Your task to perform on an android device: Open calendar and show me the fourth week of next month Image 0: 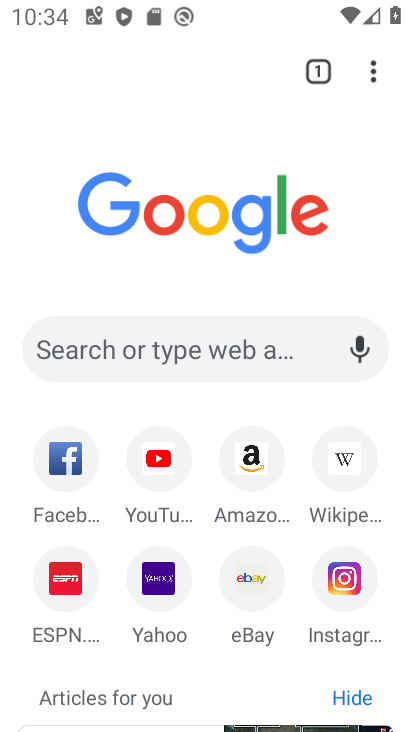
Step 0: press home button
Your task to perform on an android device: Open calendar and show me the fourth week of next month Image 1: 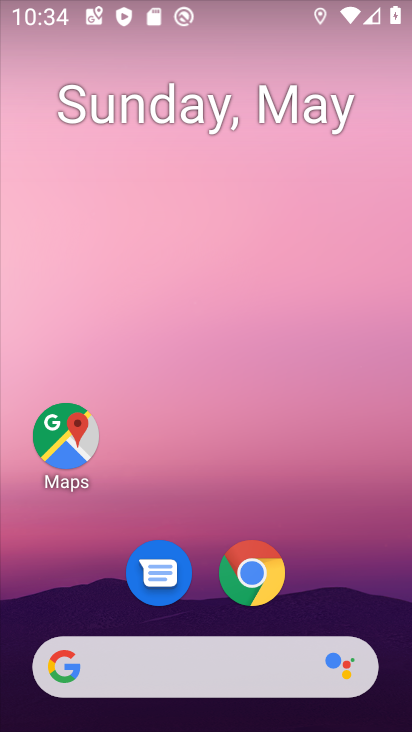
Step 1: drag from (182, 618) to (274, 163)
Your task to perform on an android device: Open calendar and show me the fourth week of next month Image 2: 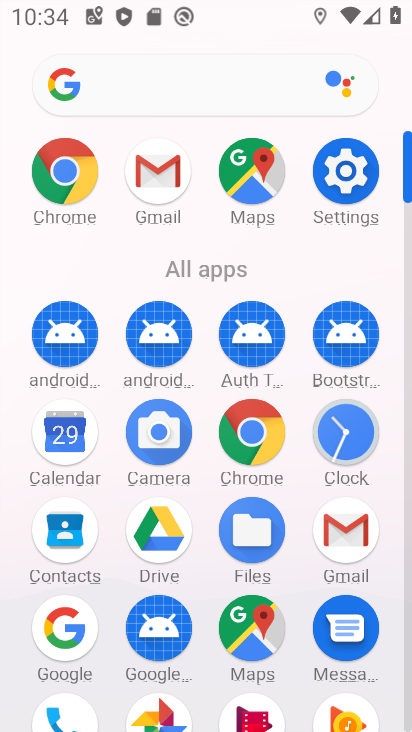
Step 2: click (71, 434)
Your task to perform on an android device: Open calendar and show me the fourth week of next month Image 3: 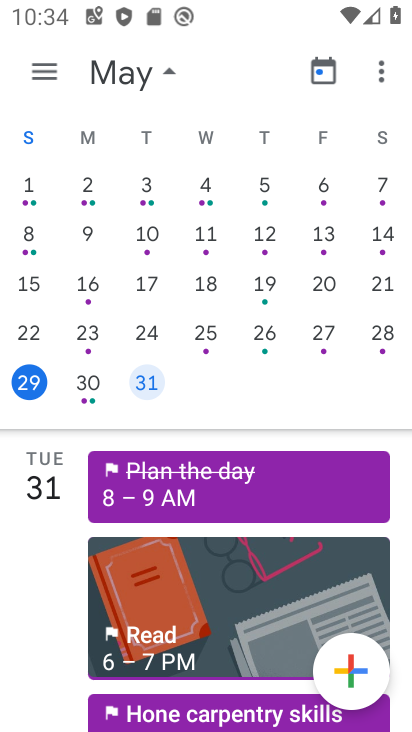
Step 3: drag from (394, 251) to (86, 252)
Your task to perform on an android device: Open calendar and show me the fourth week of next month Image 4: 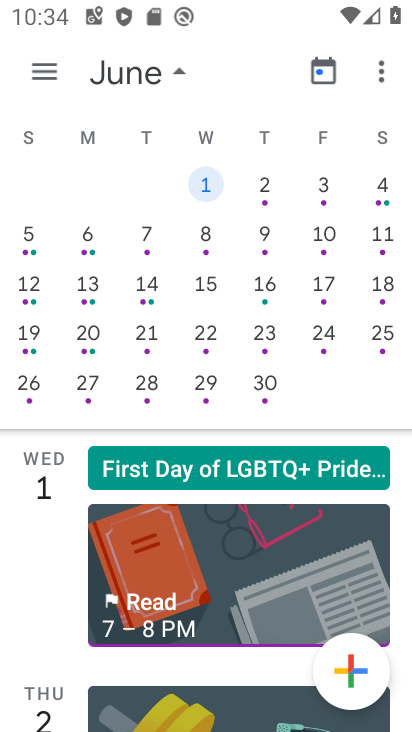
Step 4: click (211, 328)
Your task to perform on an android device: Open calendar and show me the fourth week of next month Image 5: 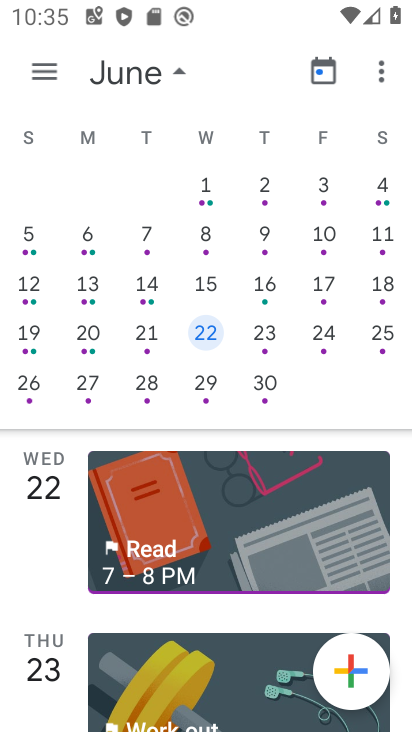
Step 5: click (42, 336)
Your task to perform on an android device: Open calendar and show me the fourth week of next month Image 6: 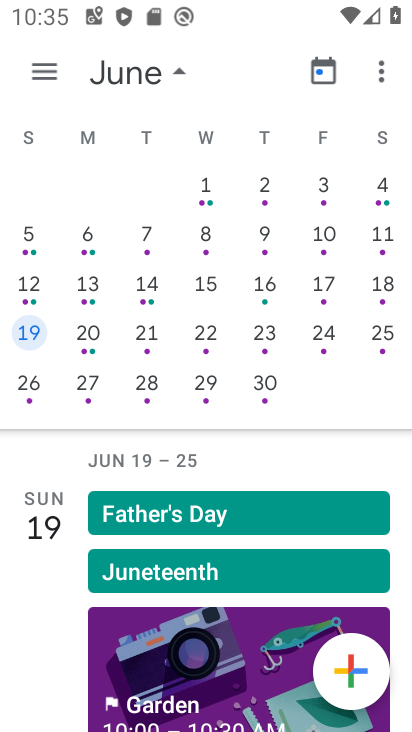
Step 6: click (93, 340)
Your task to perform on an android device: Open calendar and show me the fourth week of next month Image 7: 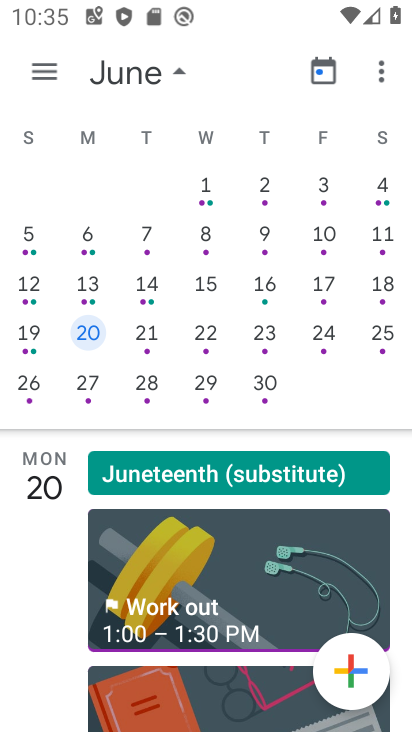
Step 7: click (147, 345)
Your task to perform on an android device: Open calendar and show me the fourth week of next month Image 8: 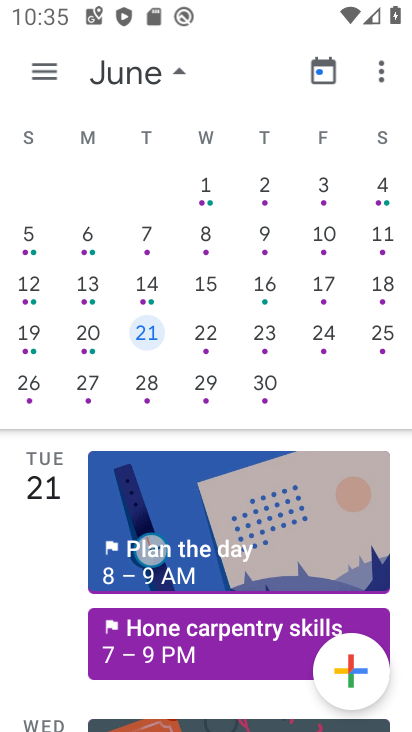
Step 8: click (211, 339)
Your task to perform on an android device: Open calendar and show me the fourth week of next month Image 9: 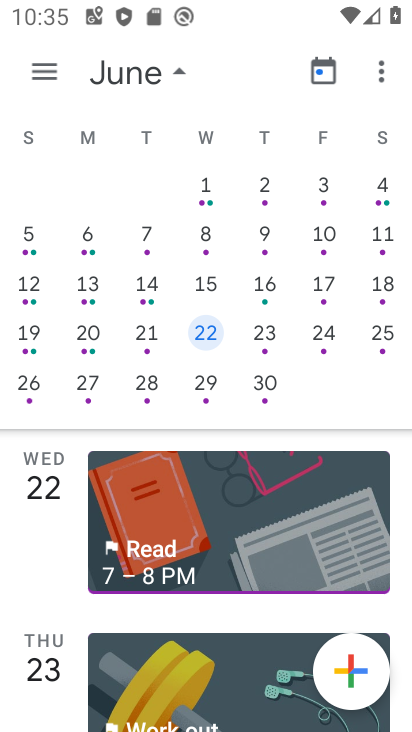
Step 9: click (282, 347)
Your task to perform on an android device: Open calendar and show me the fourth week of next month Image 10: 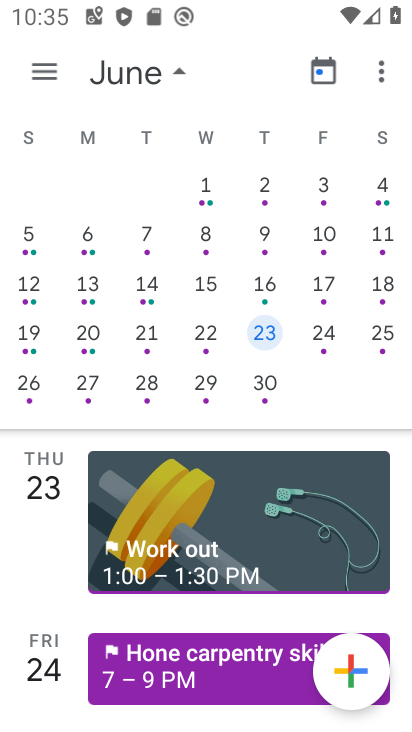
Step 10: click (328, 333)
Your task to perform on an android device: Open calendar and show me the fourth week of next month Image 11: 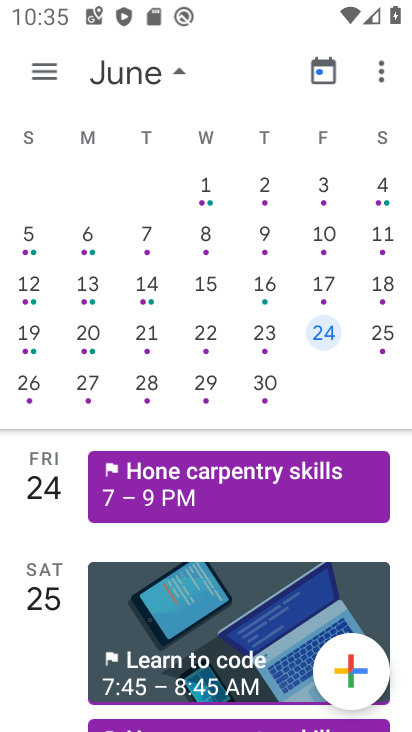
Step 11: click (383, 332)
Your task to perform on an android device: Open calendar and show me the fourth week of next month Image 12: 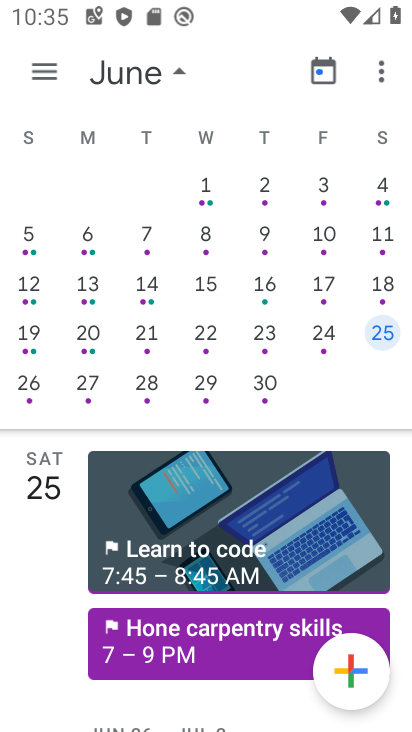
Step 12: task complete